Your task to perform on an android device: Go to location settings Image 0: 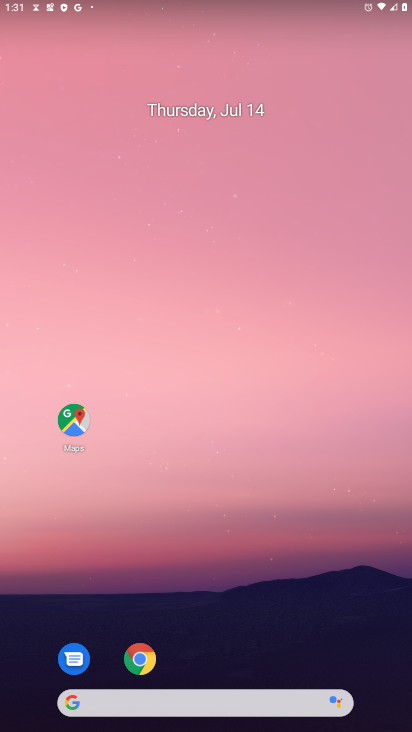
Step 0: drag from (35, 683) to (282, 89)
Your task to perform on an android device: Go to location settings Image 1: 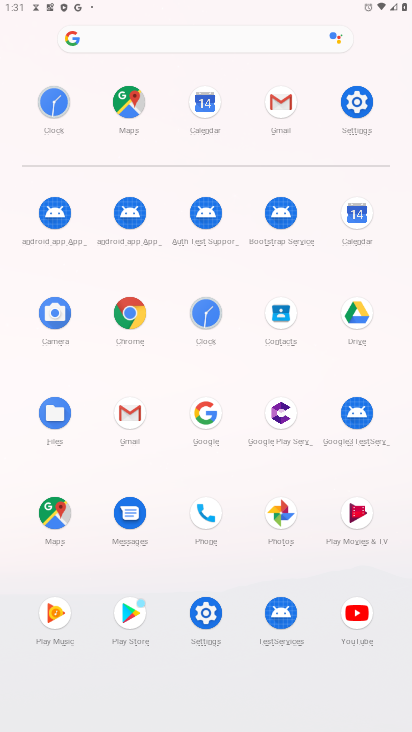
Step 1: click (204, 612)
Your task to perform on an android device: Go to location settings Image 2: 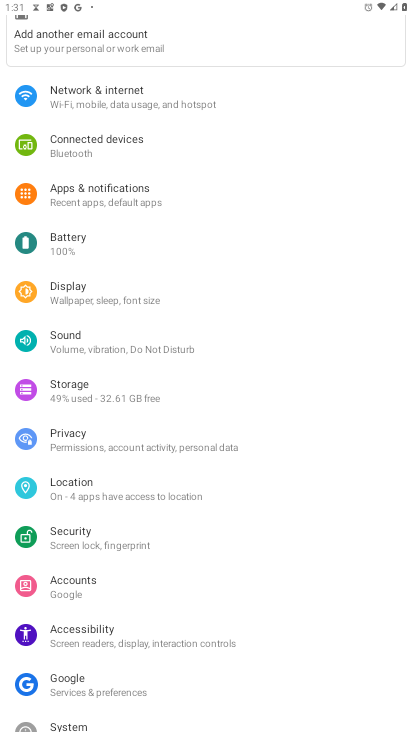
Step 2: click (96, 475)
Your task to perform on an android device: Go to location settings Image 3: 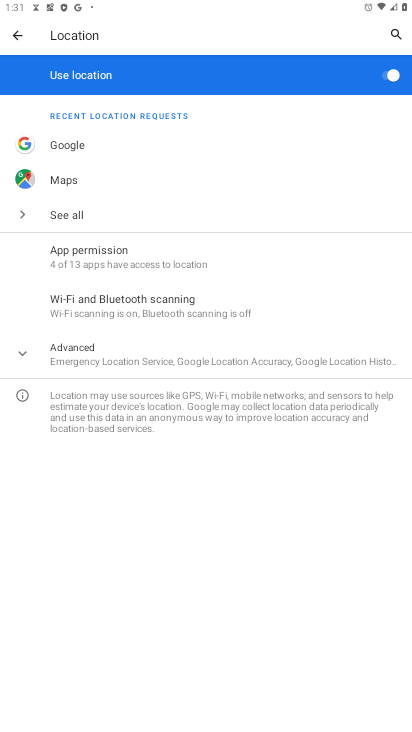
Step 3: task complete